Your task to perform on an android device: Show me productivity apps on the Play Store Image 0: 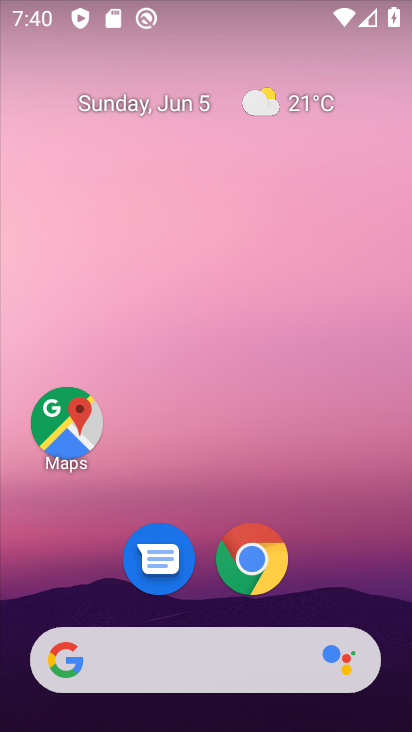
Step 0: drag from (348, 536) to (302, 103)
Your task to perform on an android device: Show me productivity apps on the Play Store Image 1: 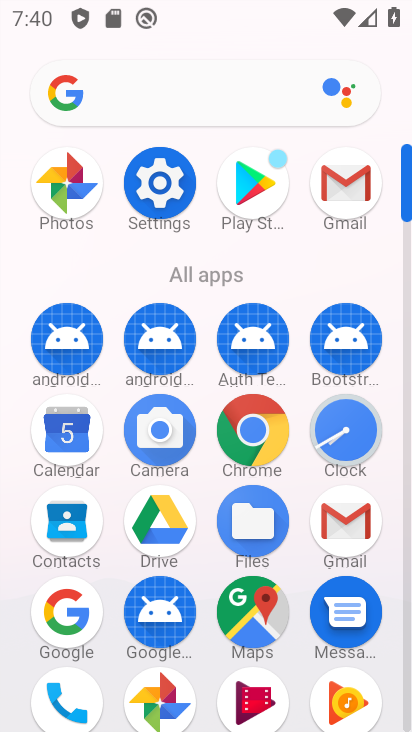
Step 1: drag from (302, 584) to (294, 241)
Your task to perform on an android device: Show me productivity apps on the Play Store Image 2: 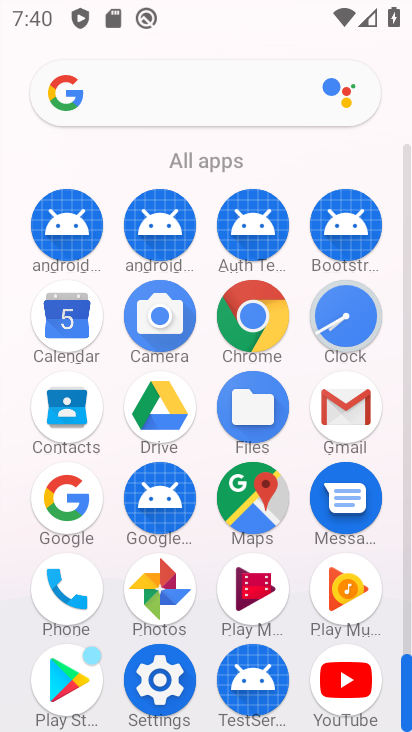
Step 2: click (51, 686)
Your task to perform on an android device: Show me productivity apps on the Play Store Image 3: 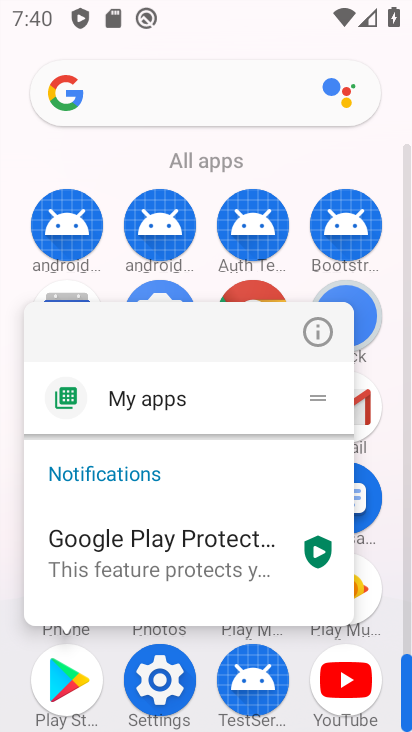
Step 3: click (68, 677)
Your task to perform on an android device: Show me productivity apps on the Play Store Image 4: 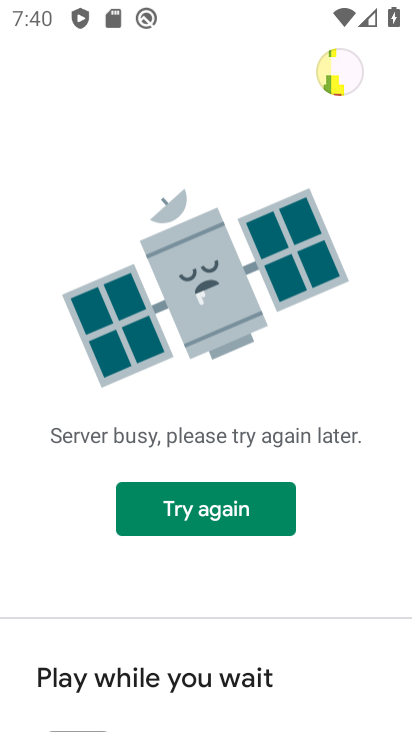
Step 4: click (256, 506)
Your task to perform on an android device: Show me productivity apps on the Play Store Image 5: 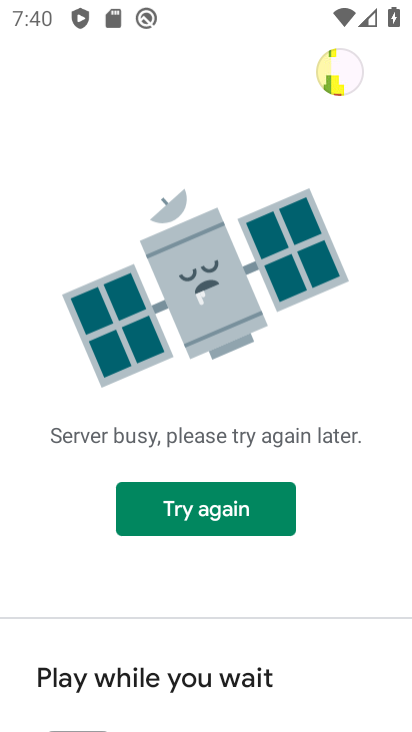
Step 5: task complete